Your task to perform on an android device: search for starred emails in the gmail app Image 0: 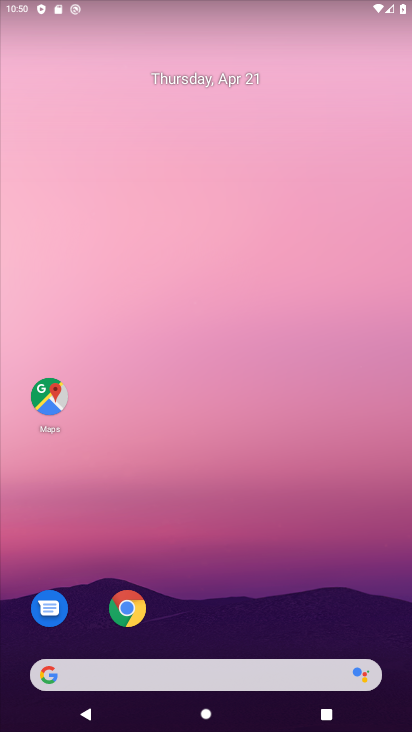
Step 0: click (127, 604)
Your task to perform on an android device: search for starred emails in the gmail app Image 1: 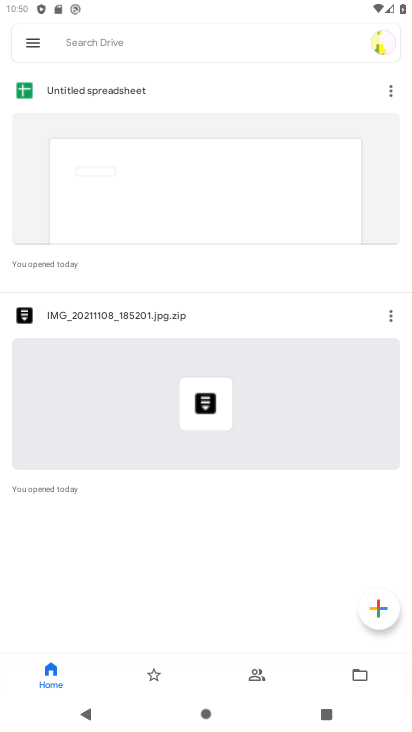
Step 1: press home button
Your task to perform on an android device: search for starred emails in the gmail app Image 2: 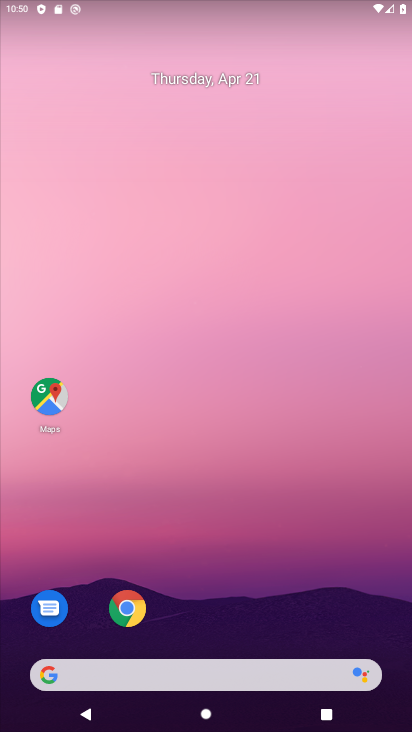
Step 2: drag from (196, 388) to (211, 77)
Your task to perform on an android device: search for starred emails in the gmail app Image 3: 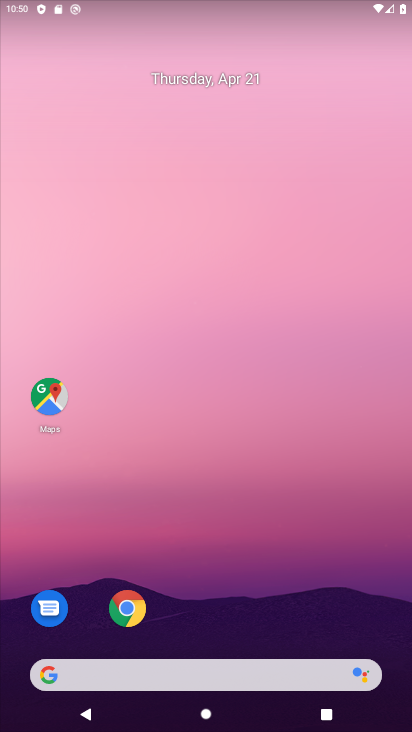
Step 3: drag from (238, 543) to (240, 133)
Your task to perform on an android device: search for starred emails in the gmail app Image 4: 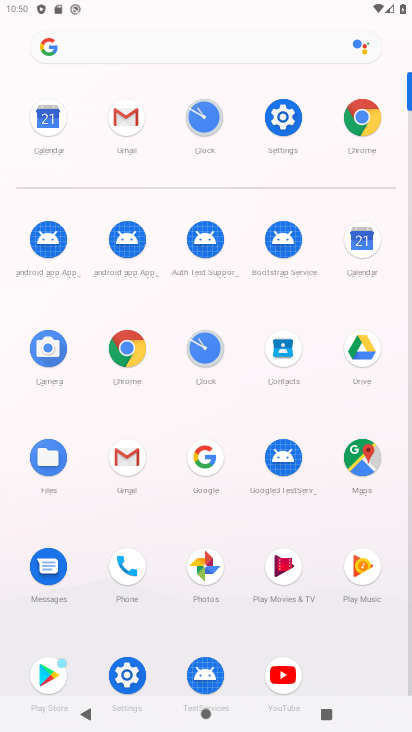
Step 4: click (124, 466)
Your task to perform on an android device: search for starred emails in the gmail app Image 5: 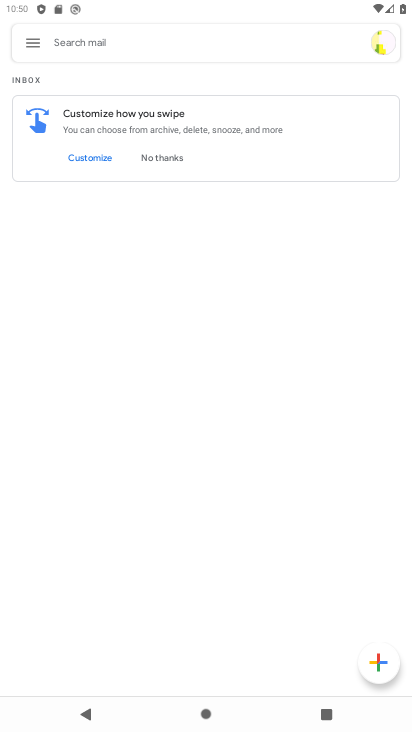
Step 5: click (38, 43)
Your task to perform on an android device: search for starred emails in the gmail app Image 6: 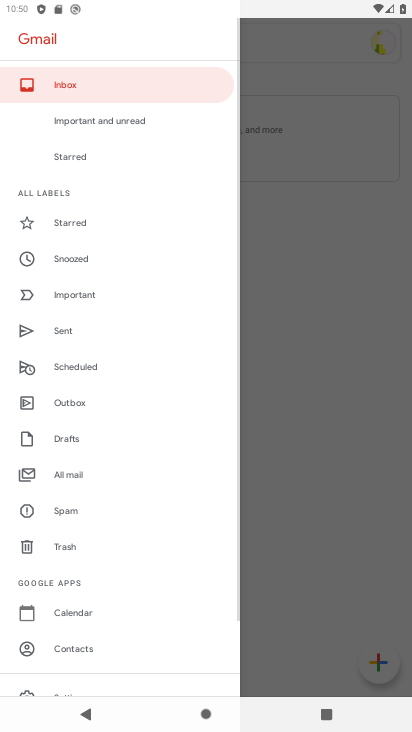
Step 6: click (63, 219)
Your task to perform on an android device: search for starred emails in the gmail app Image 7: 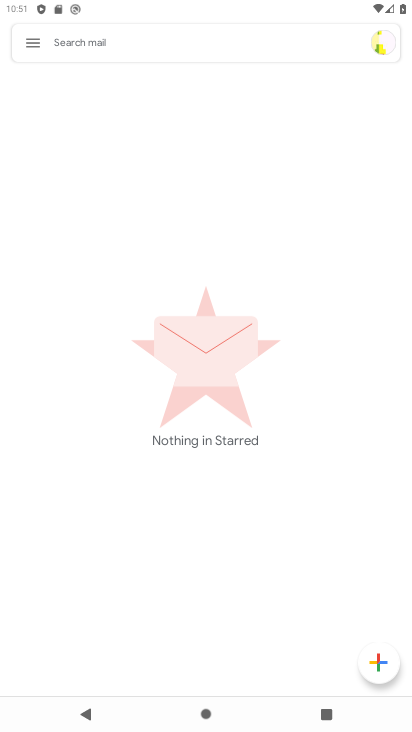
Step 7: task complete